Your task to perform on an android device: turn notification dots on Image 0: 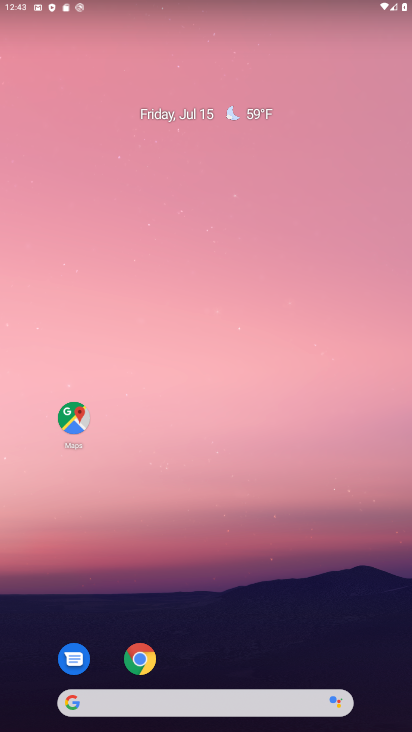
Step 0: drag from (218, 714) to (232, 105)
Your task to perform on an android device: turn notification dots on Image 1: 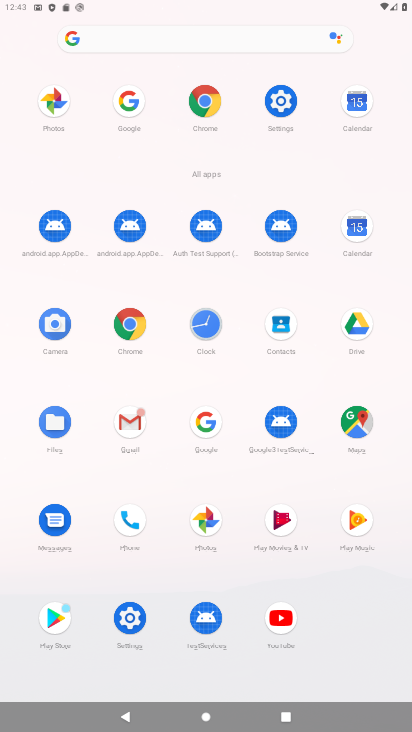
Step 1: click (272, 98)
Your task to perform on an android device: turn notification dots on Image 2: 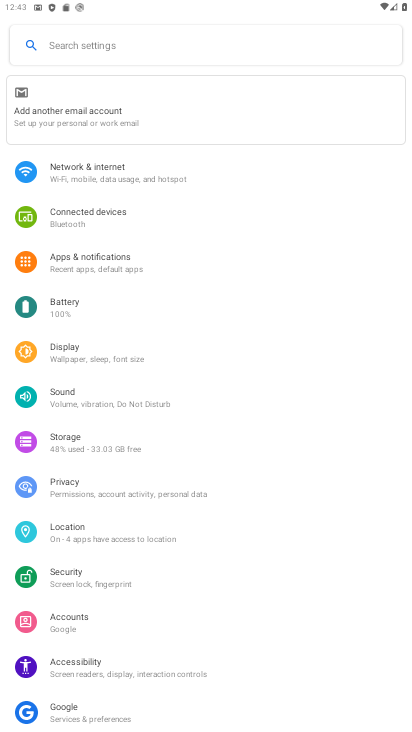
Step 2: click (85, 257)
Your task to perform on an android device: turn notification dots on Image 3: 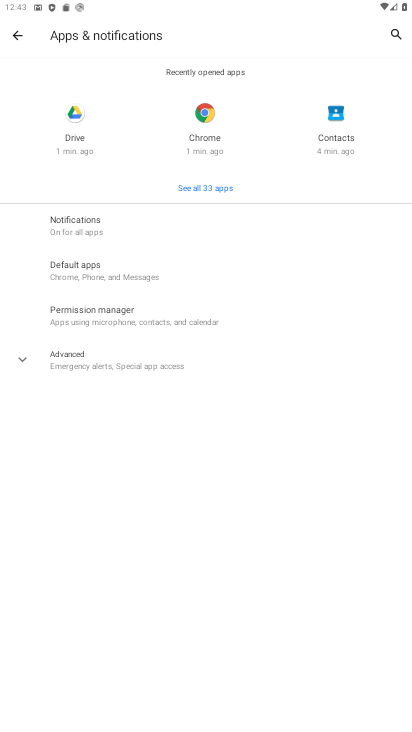
Step 3: click (67, 218)
Your task to perform on an android device: turn notification dots on Image 4: 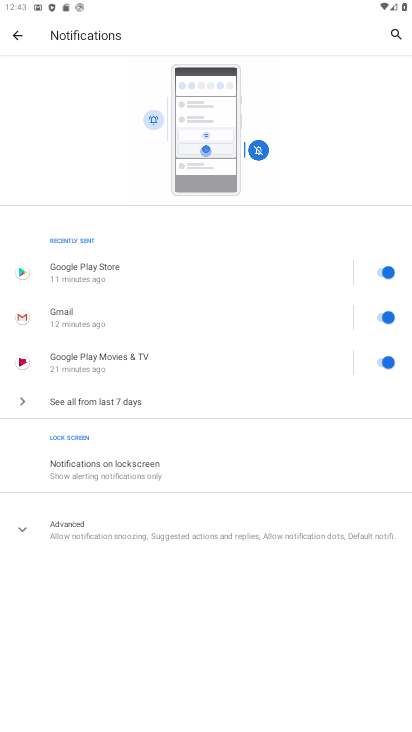
Step 4: click (64, 524)
Your task to perform on an android device: turn notification dots on Image 5: 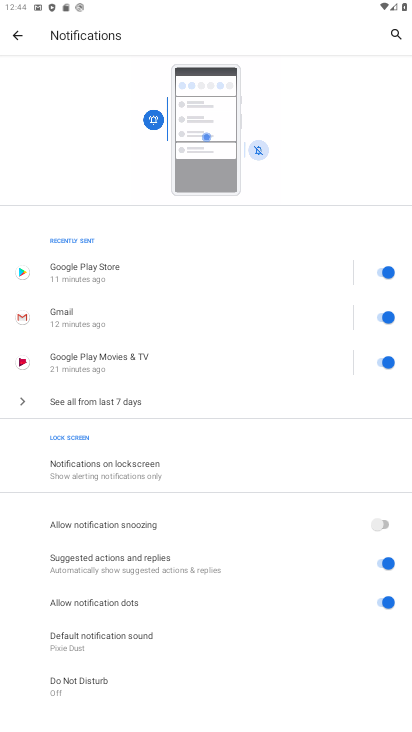
Step 5: task complete